Your task to perform on an android device: uninstall "WhatsApp Messenger" Image 0: 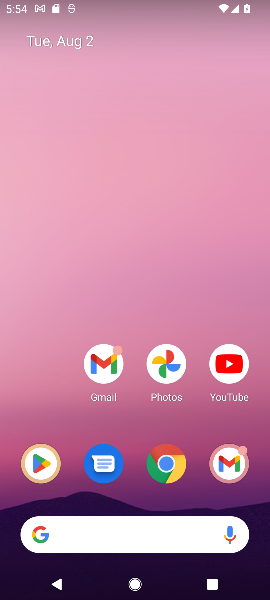
Step 0: press home button
Your task to perform on an android device: uninstall "WhatsApp Messenger" Image 1: 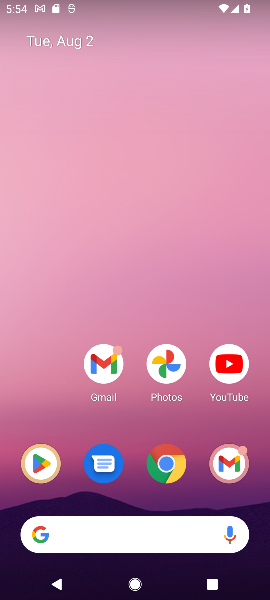
Step 1: click (35, 451)
Your task to perform on an android device: uninstall "WhatsApp Messenger" Image 2: 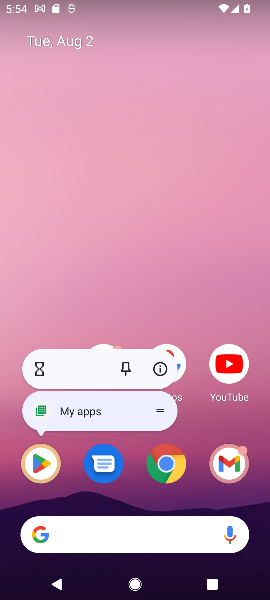
Step 2: click (43, 457)
Your task to perform on an android device: uninstall "WhatsApp Messenger" Image 3: 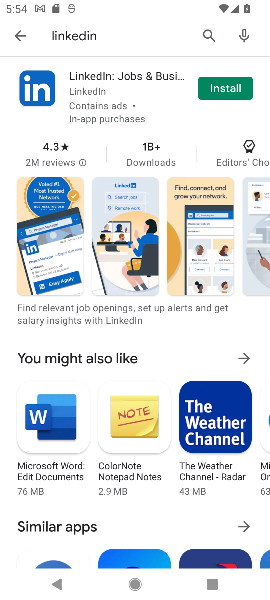
Step 3: click (208, 37)
Your task to perform on an android device: uninstall "WhatsApp Messenger" Image 4: 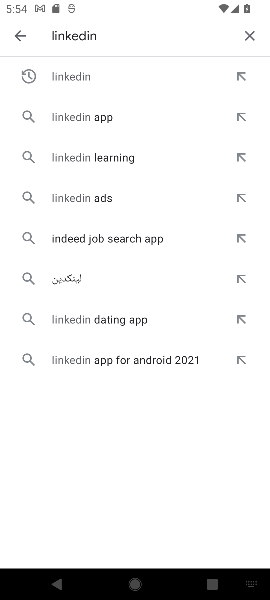
Step 4: click (250, 32)
Your task to perform on an android device: uninstall "WhatsApp Messenger" Image 5: 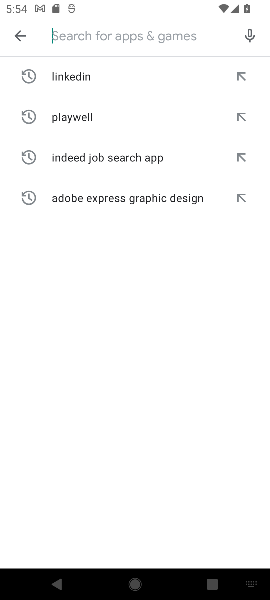
Step 5: type "WhatsApp Messenger"
Your task to perform on an android device: uninstall "WhatsApp Messenger" Image 6: 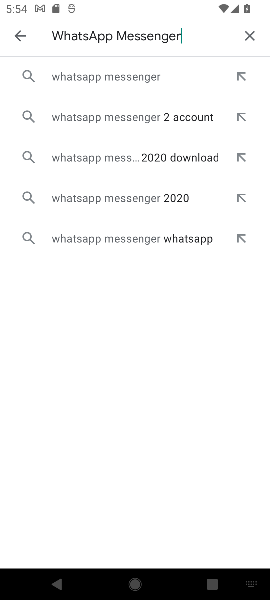
Step 6: click (111, 77)
Your task to perform on an android device: uninstall "WhatsApp Messenger" Image 7: 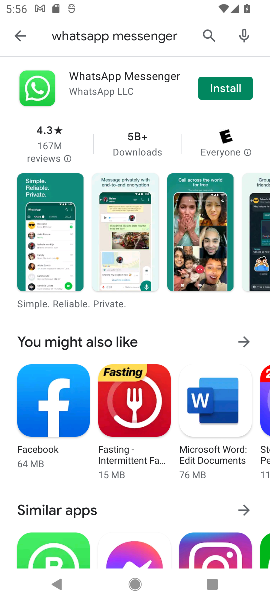
Step 7: task complete